Your task to perform on an android device: Open wifi settings Image 0: 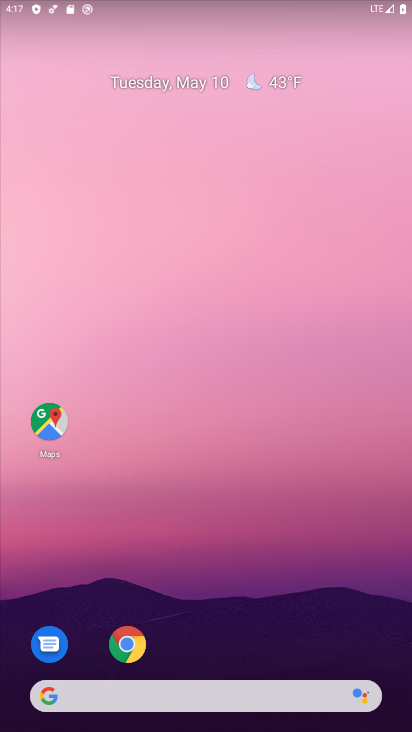
Step 0: drag from (201, 678) to (267, 229)
Your task to perform on an android device: Open wifi settings Image 1: 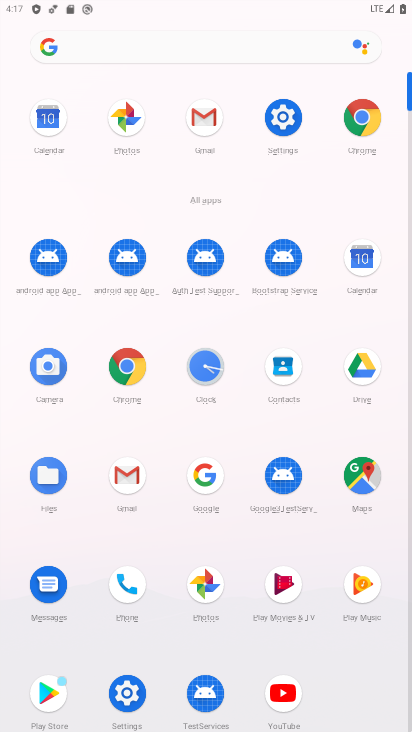
Step 1: click (287, 119)
Your task to perform on an android device: Open wifi settings Image 2: 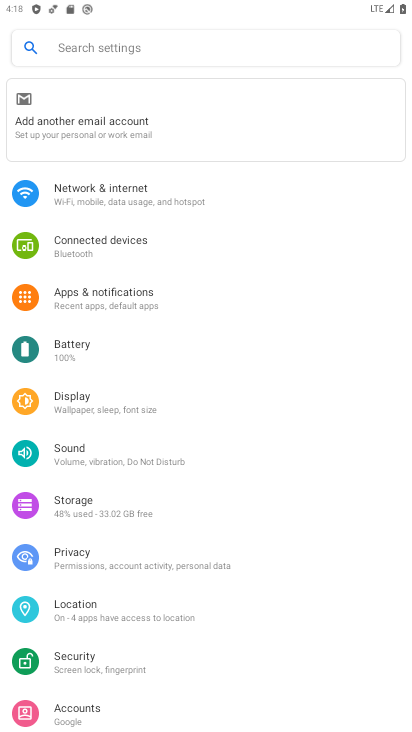
Step 2: click (156, 196)
Your task to perform on an android device: Open wifi settings Image 3: 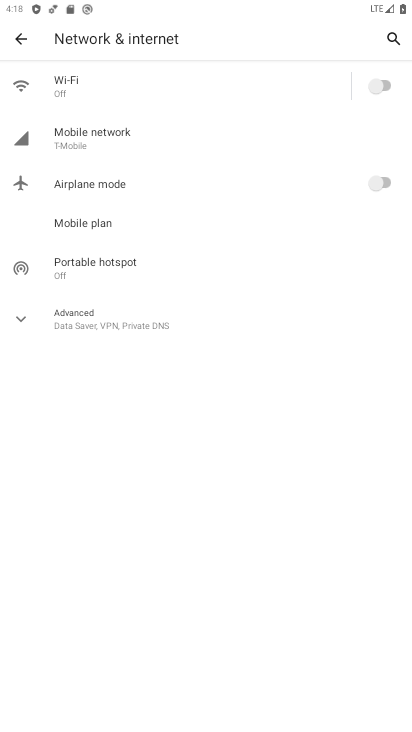
Step 3: click (242, 87)
Your task to perform on an android device: Open wifi settings Image 4: 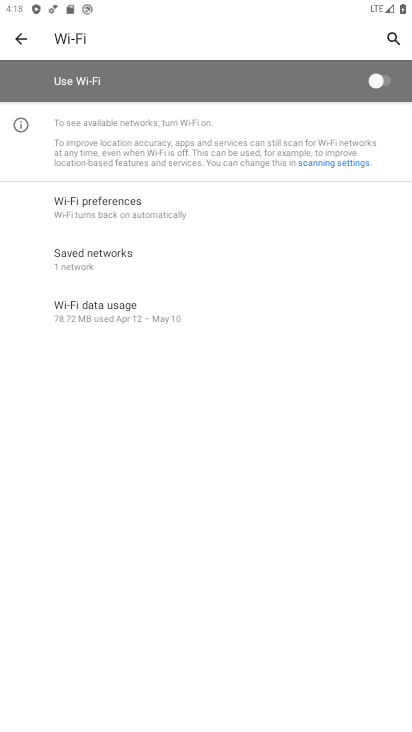
Step 4: click (377, 71)
Your task to perform on an android device: Open wifi settings Image 5: 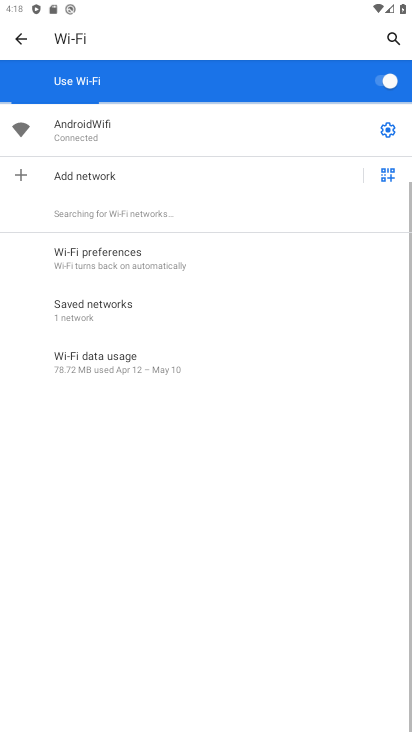
Step 5: click (387, 128)
Your task to perform on an android device: Open wifi settings Image 6: 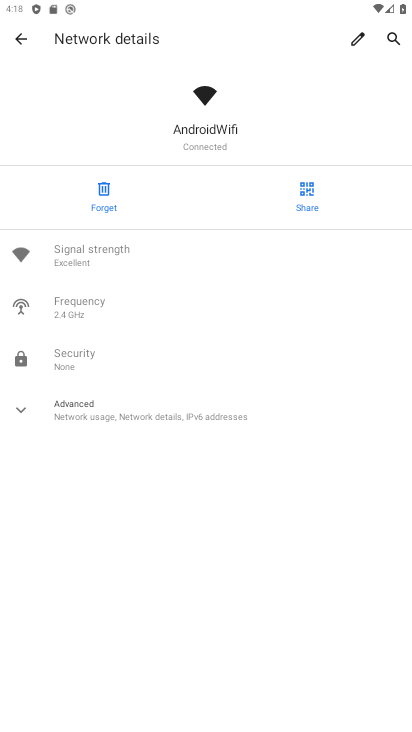
Step 6: click (161, 422)
Your task to perform on an android device: Open wifi settings Image 7: 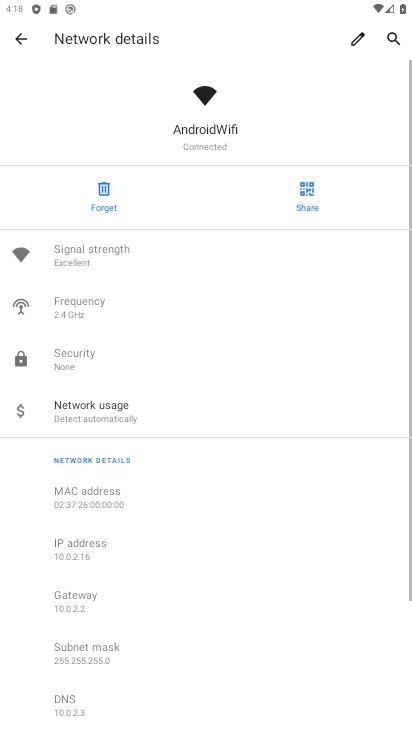
Step 7: task complete